Your task to perform on an android device: Open the map Image 0: 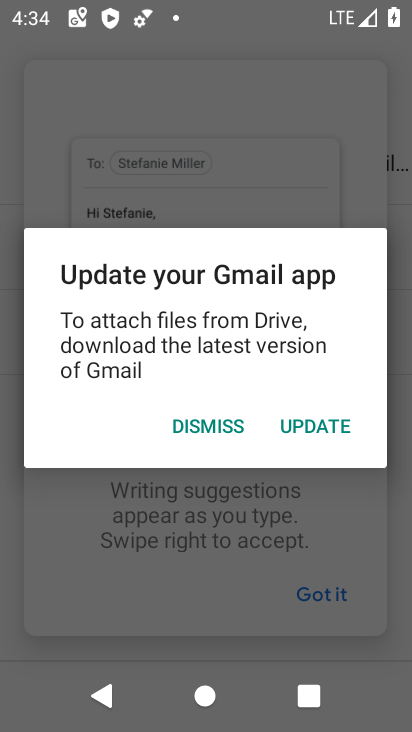
Step 0: press home button
Your task to perform on an android device: Open the map Image 1: 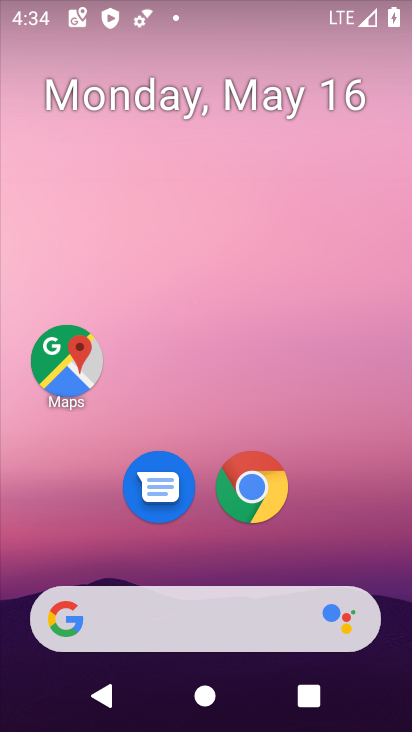
Step 1: click (65, 359)
Your task to perform on an android device: Open the map Image 2: 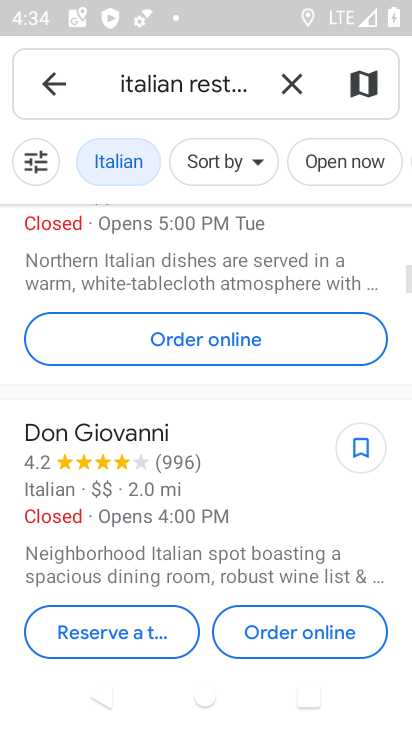
Step 2: click (292, 85)
Your task to perform on an android device: Open the map Image 3: 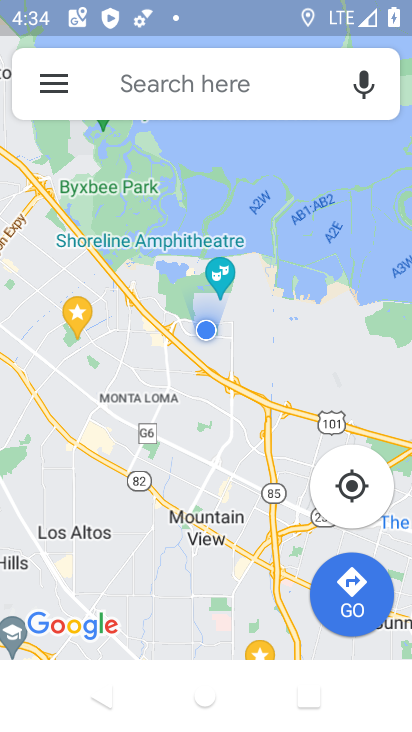
Step 3: task complete